Your task to perform on an android device: toggle improve location accuracy Image 0: 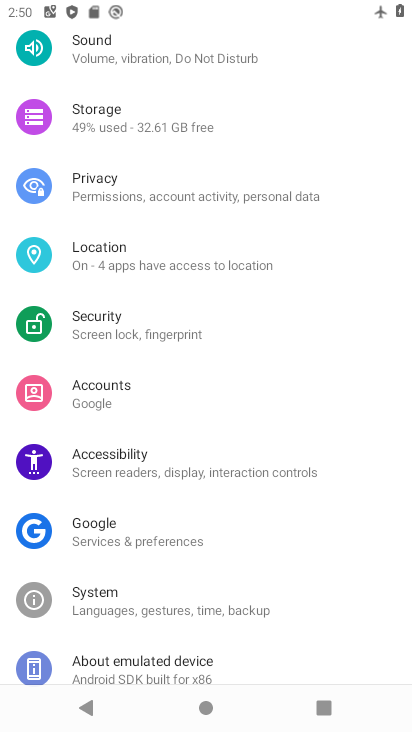
Step 0: click (147, 255)
Your task to perform on an android device: toggle improve location accuracy Image 1: 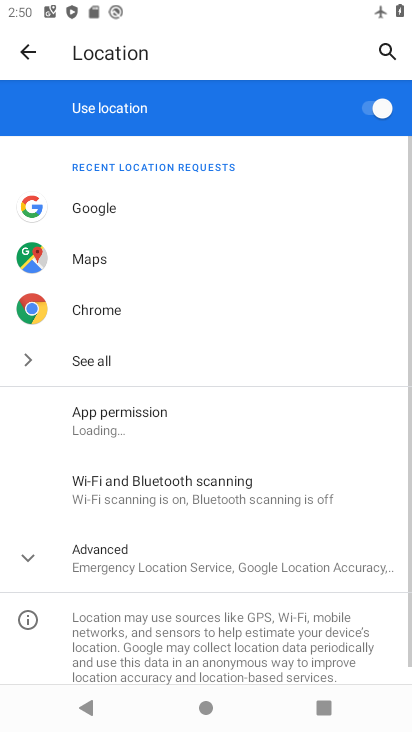
Step 1: click (155, 565)
Your task to perform on an android device: toggle improve location accuracy Image 2: 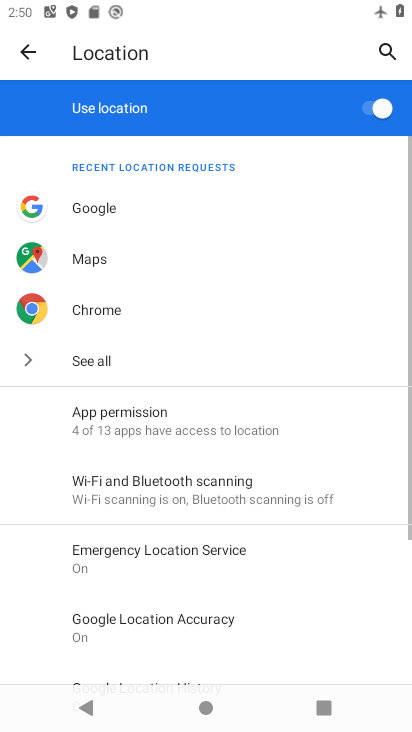
Step 2: click (206, 622)
Your task to perform on an android device: toggle improve location accuracy Image 3: 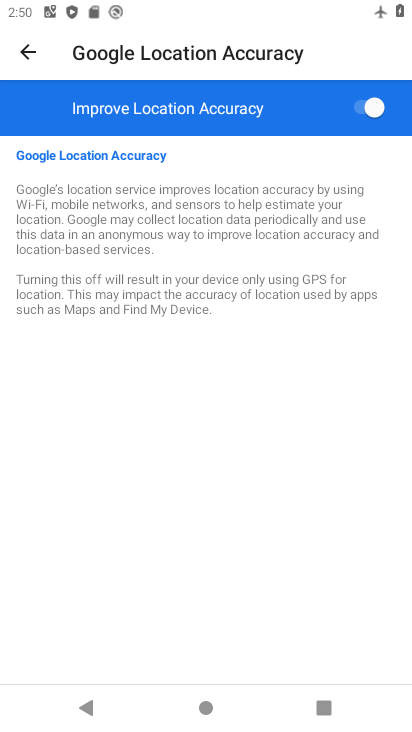
Step 3: click (349, 108)
Your task to perform on an android device: toggle improve location accuracy Image 4: 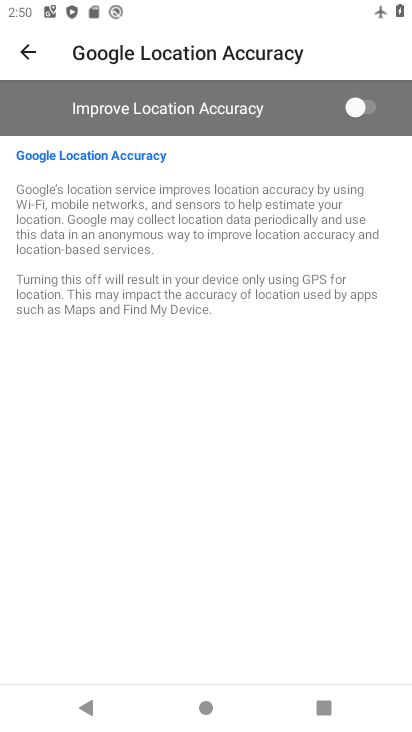
Step 4: task complete